Your task to perform on an android device: Look up the best rated wireless earbuds on Ali Express Image 0: 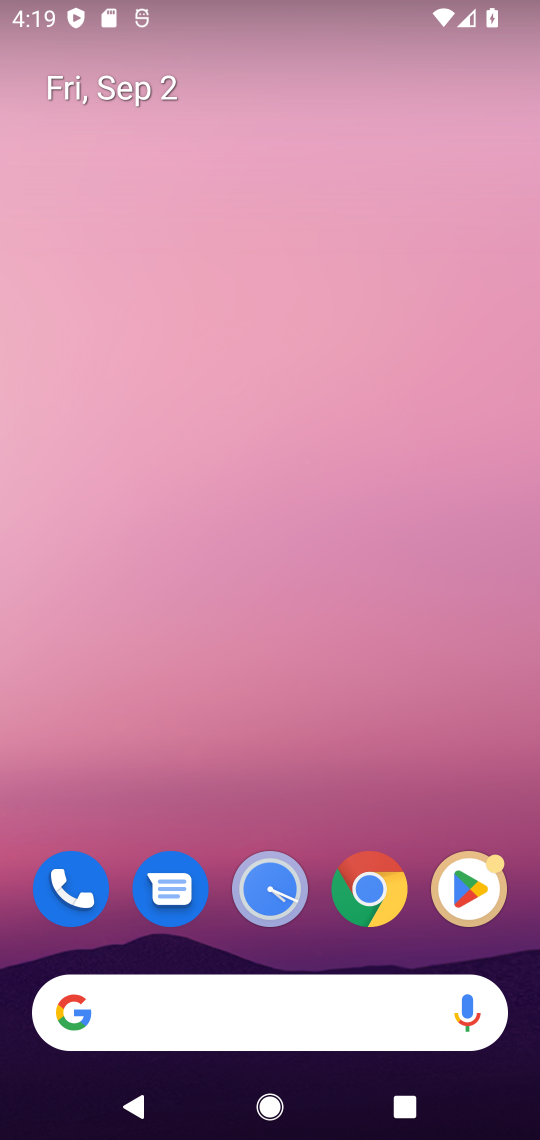
Step 0: click (221, 1009)
Your task to perform on an android device: Look up the best rated wireless earbuds on Ali Express Image 1: 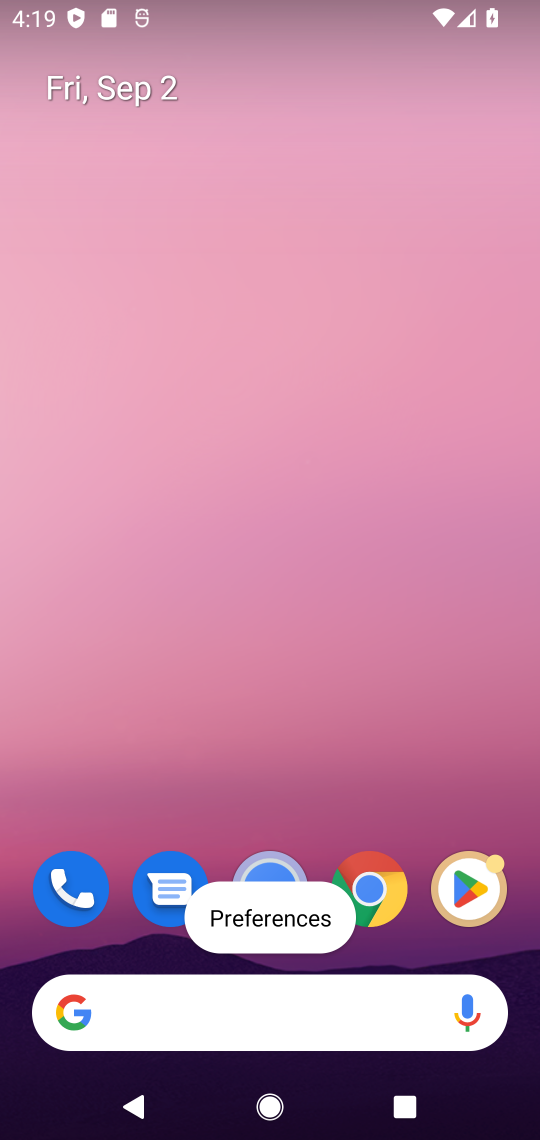
Step 1: click (336, 1031)
Your task to perform on an android device: Look up the best rated wireless earbuds on Ali Express Image 2: 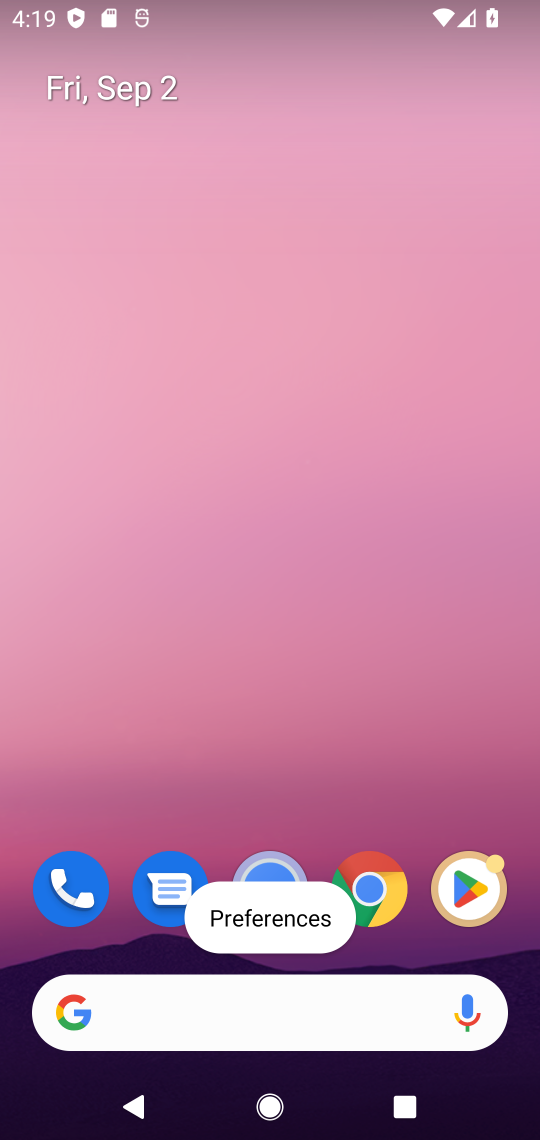
Step 2: click (191, 1009)
Your task to perform on an android device: Look up the best rated wireless earbuds on Ali Express Image 3: 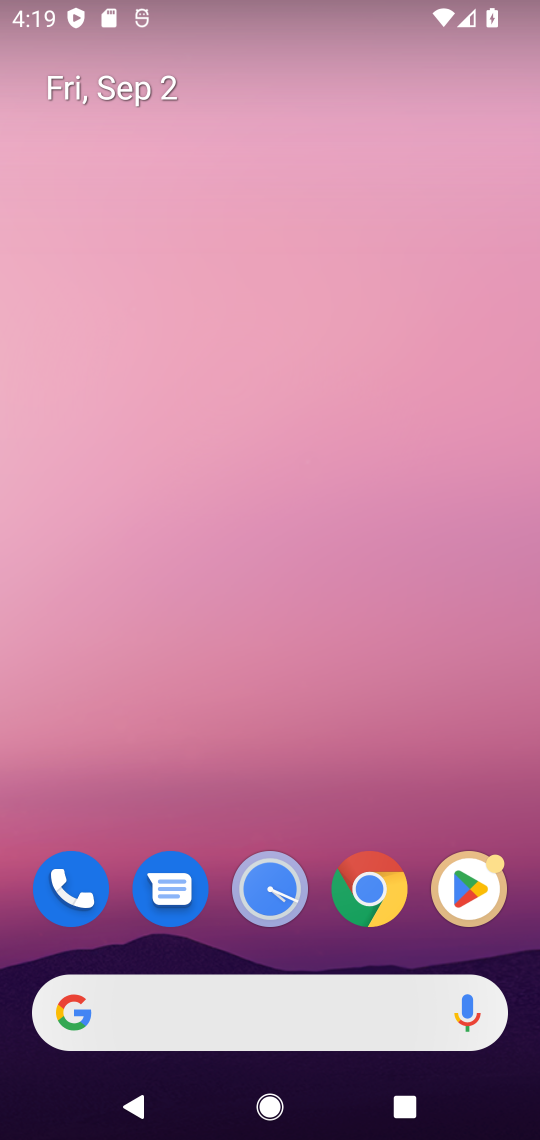
Step 3: click (191, 1009)
Your task to perform on an android device: Look up the best rated wireless earbuds on Ali Express Image 4: 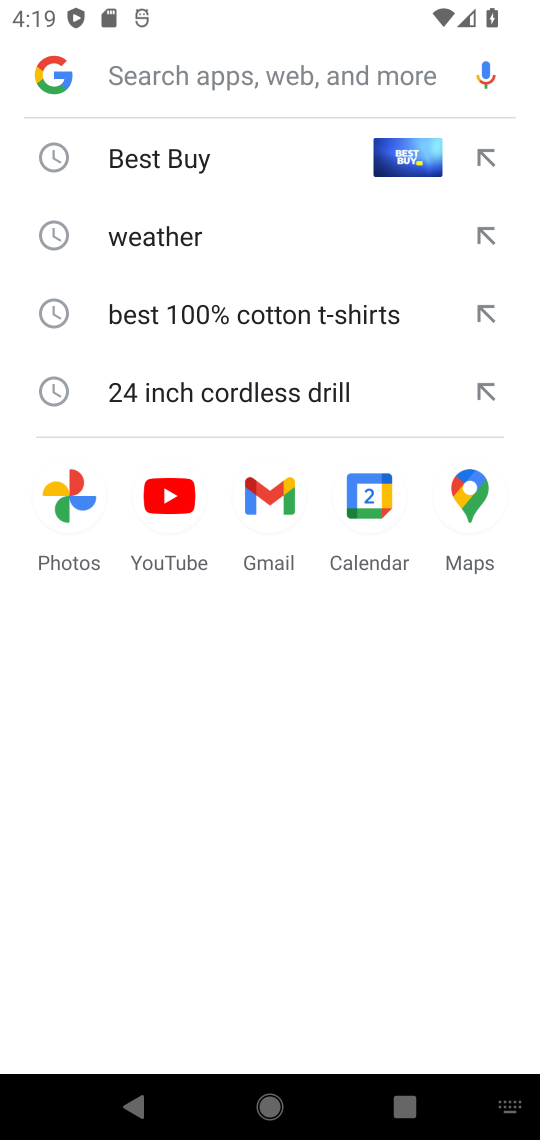
Step 4: type "Ali Express"
Your task to perform on an android device: Look up the best rated wireless earbuds on Ali Express Image 5: 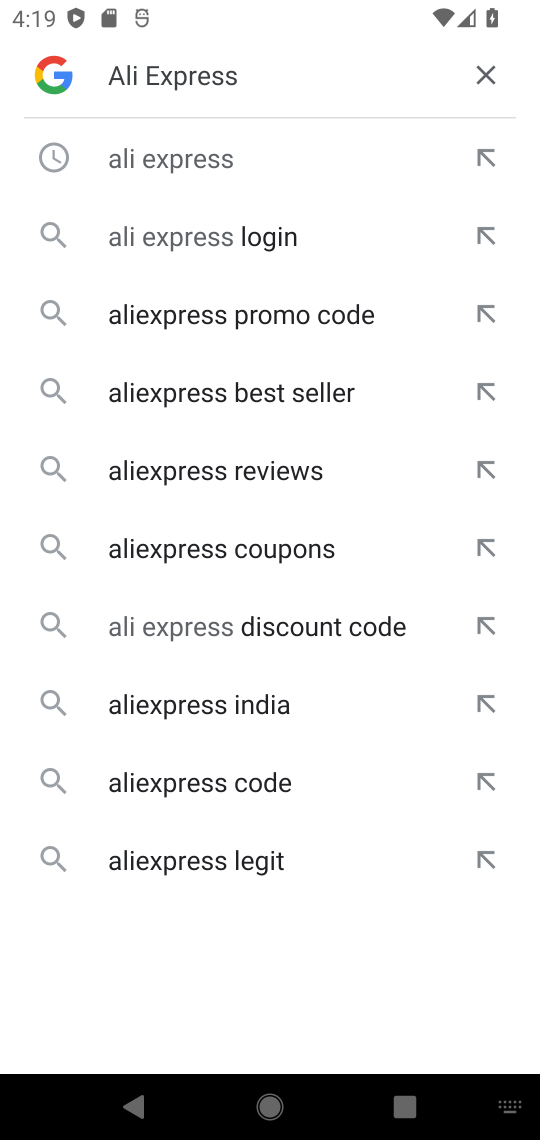
Step 5: click (223, 146)
Your task to perform on an android device: Look up the best rated wireless earbuds on Ali Express Image 6: 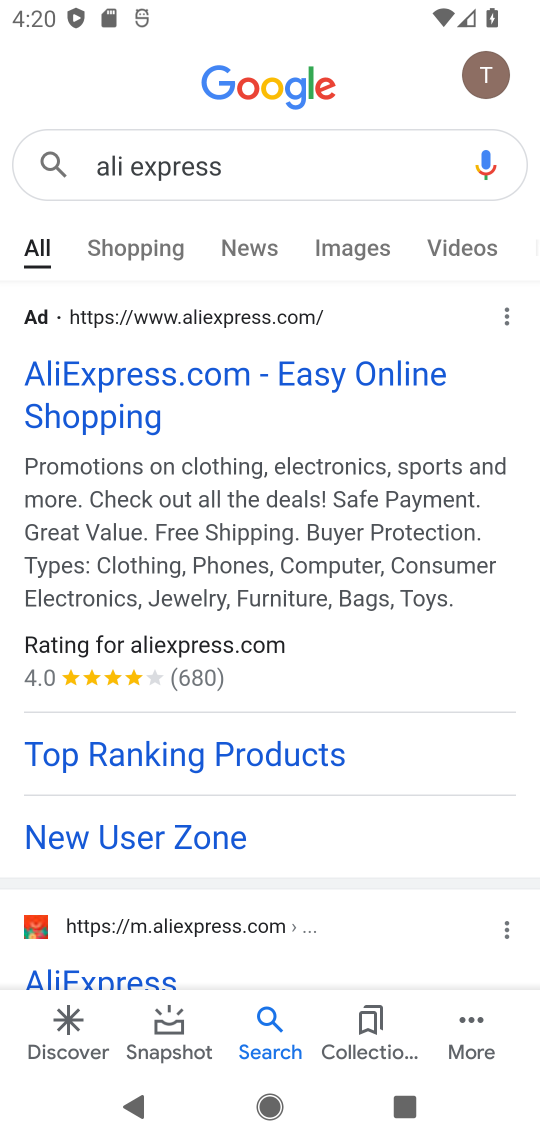
Step 6: drag from (283, 727) to (365, 402)
Your task to perform on an android device: Look up the best rated wireless earbuds on Ali Express Image 7: 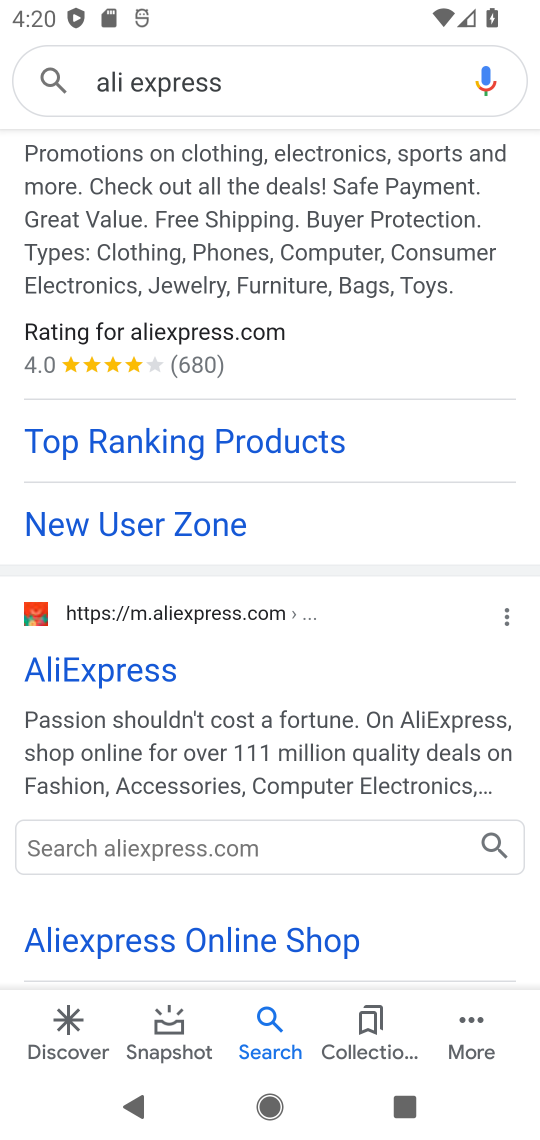
Step 7: click (79, 657)
Your task to perform on an android device: Look up the best rated wireless earbuds on Ali Express Image 8: 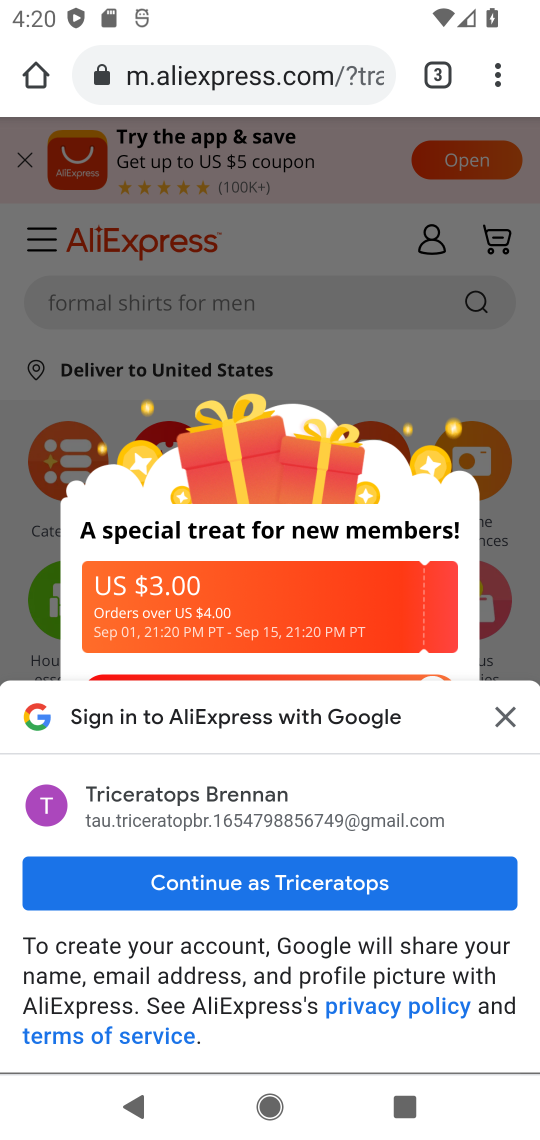
Step 8: click (501, 702)
Your task to perform on an android device: Look up the best rated wireless earbuds on Ali Express Image 9: 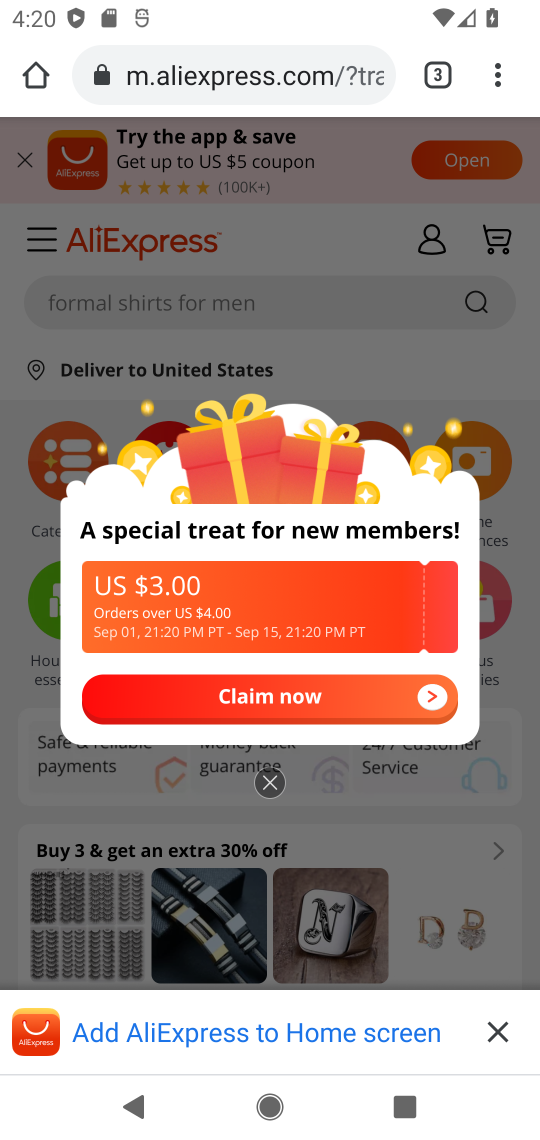
Step 9: click (446, 301)
Your task to perform on an android device: Look up the best rated wireless earbuds on Ali Express Image 10: 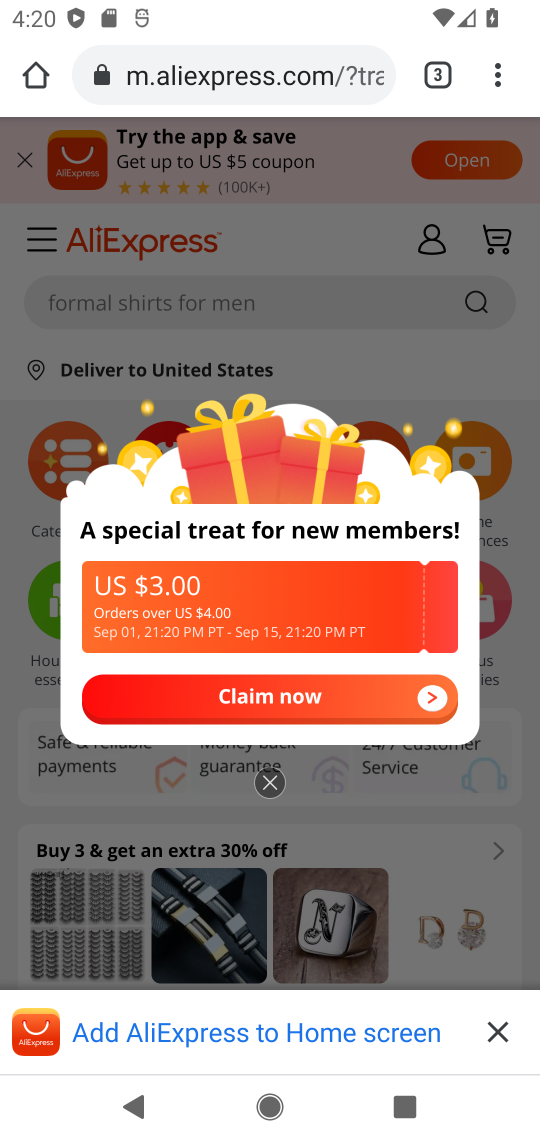
Step 10: click (304, 296)
Your task to perform on an android device: Look up the best rated wireless earbuds on Ali Express Image 11: 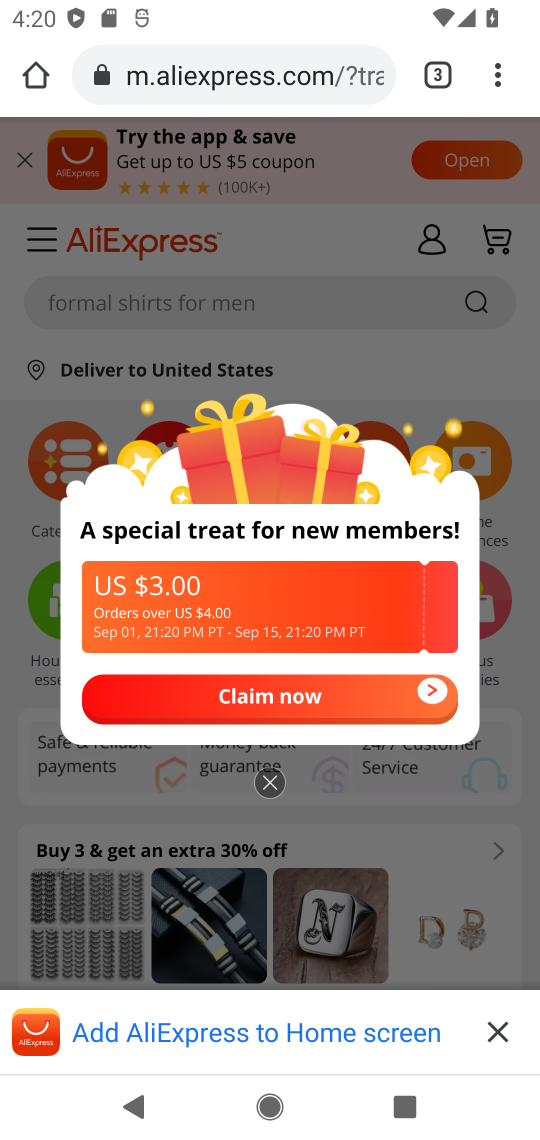
Step 11: click (257, 803)
Your task to perform on an android device: Look up the best rated wireless earbuds on Ali Express Image 12: 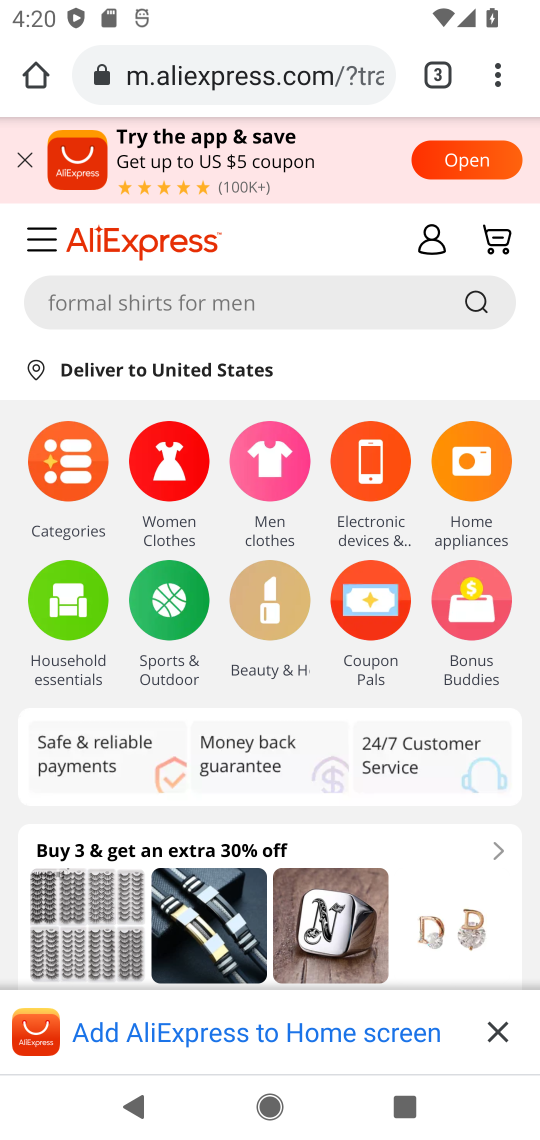
Step 12: click (214, 306)
Your task to perform on an android device: Look up the best rated wireless earbuds on Ali Express Image 13: 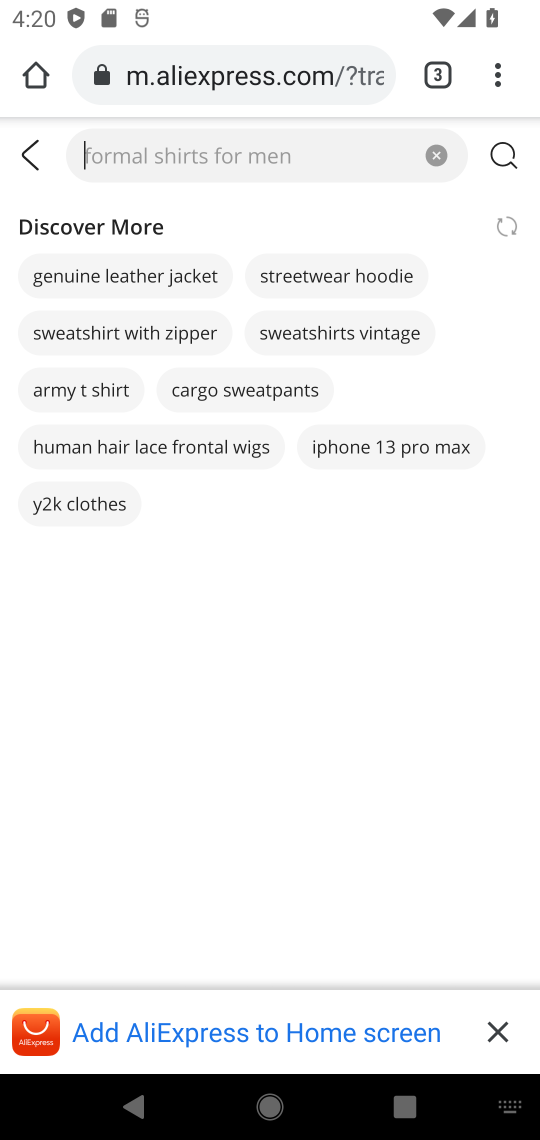
Step 13: type "wireless earbuds"
Your task to perform on an android device: Look up the best rated wireless earbuds on Ali Express Image 14: 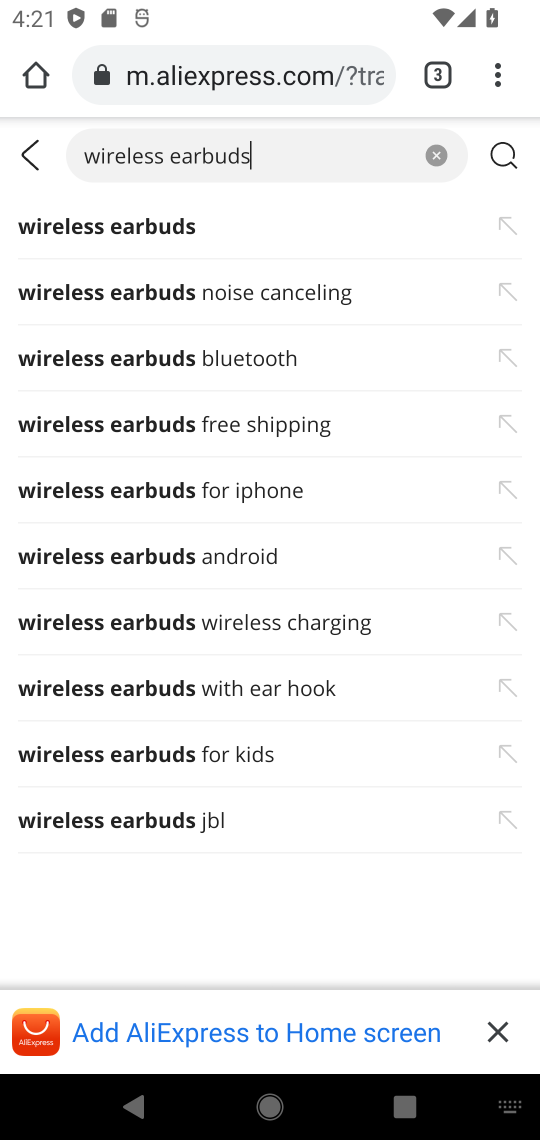
Step 14: click (125, 239)
Your task to perform on an android device: Look up the best rated wireless earbuds on Ali Express Image 15: 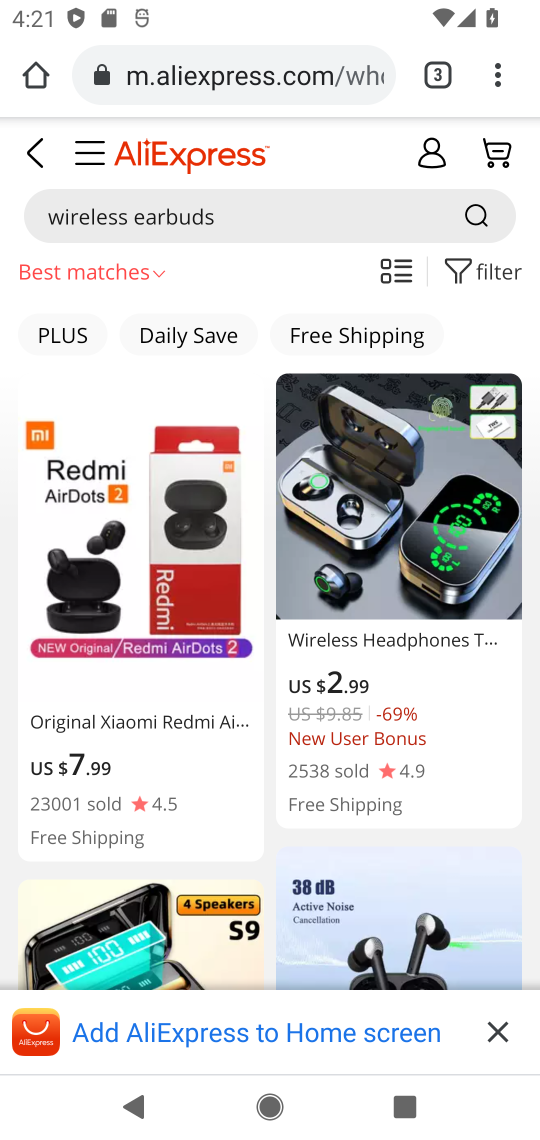
Step 15: click (411, 352)
Your task to perform on an android device: Look up the best rated wireless earbuds on Ali Express Image 16: 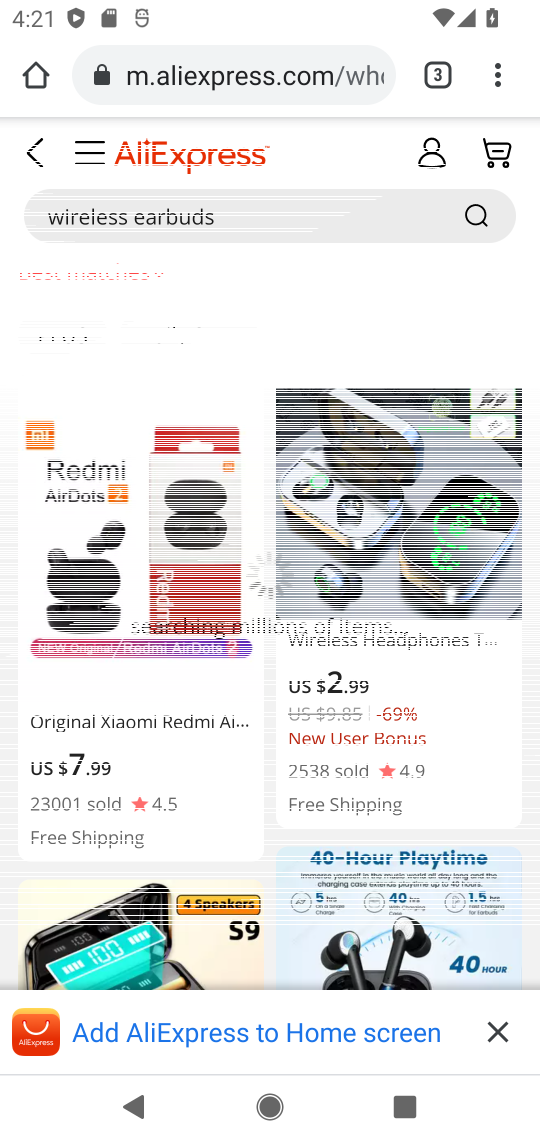
Step 16: task complete